Your task to perform on an android device: move an email to a new category in the gmail app Image 0: 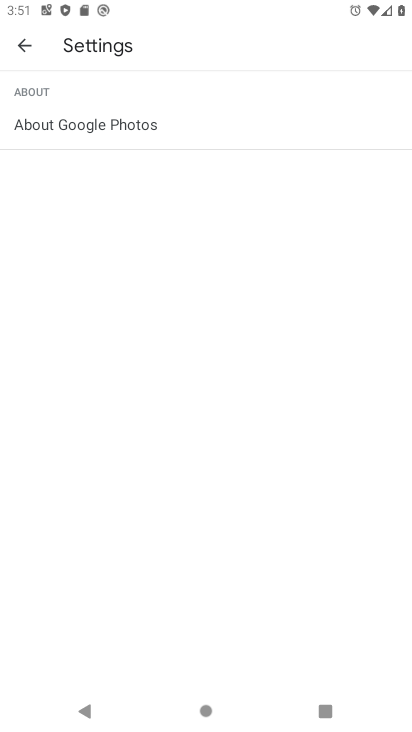
Step 0: press home button
Your task to perform on an android device: move an email to a new category in the gmail app Image 1: 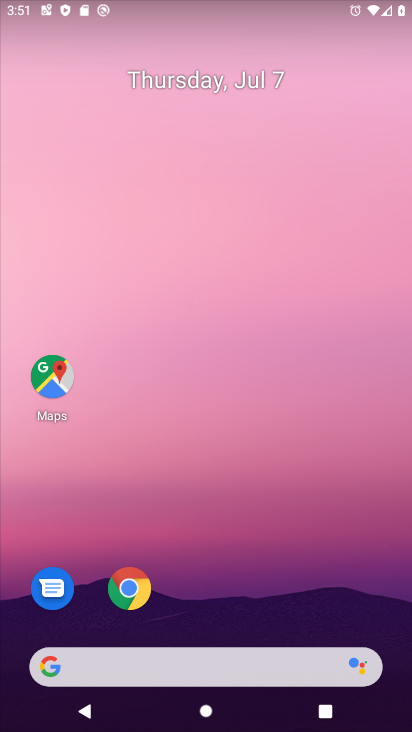
Step 1: drag from (238, 683) to (195, 138)
Your task to perform on an android device: move an email to a new category in the gmail app Image 2: 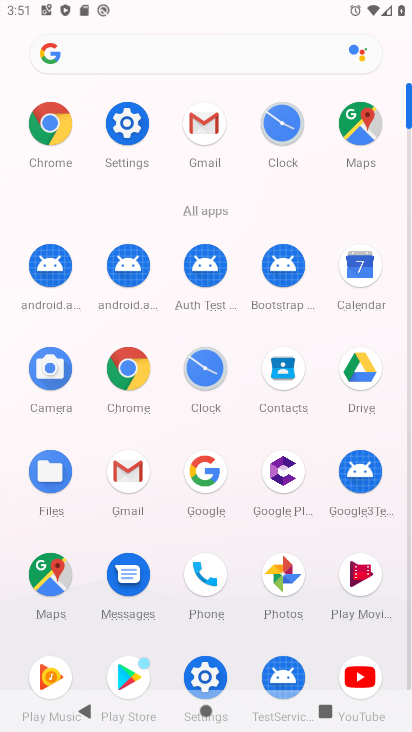
Step 2: click (190, 127)
Your task to perform on an android device: move an email to a new category in the gmail app Image 3: 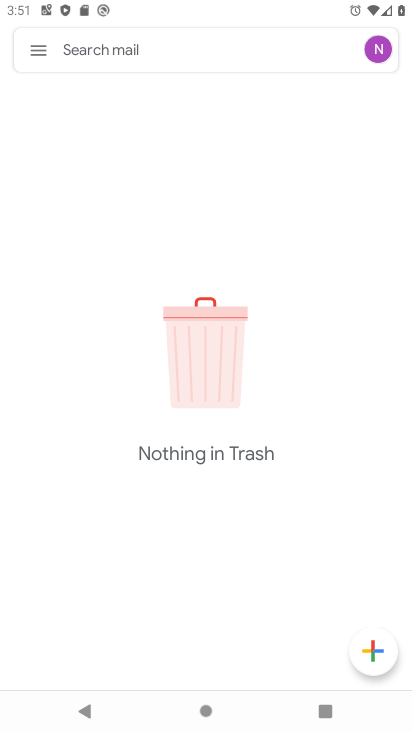
Step 3: click (30, 56)
Your task to perform on an android device: move an email to a new category in the gmail app Image 4: 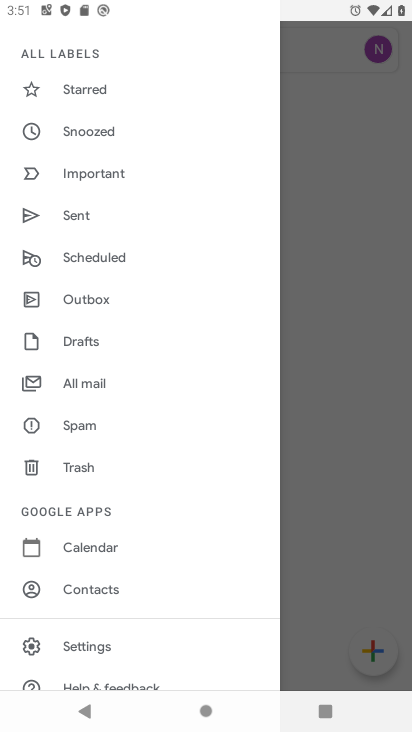
Step 4: click (113, 646)
Your task to perform on an android device: move an email to a new category in the gmail app Image 5: 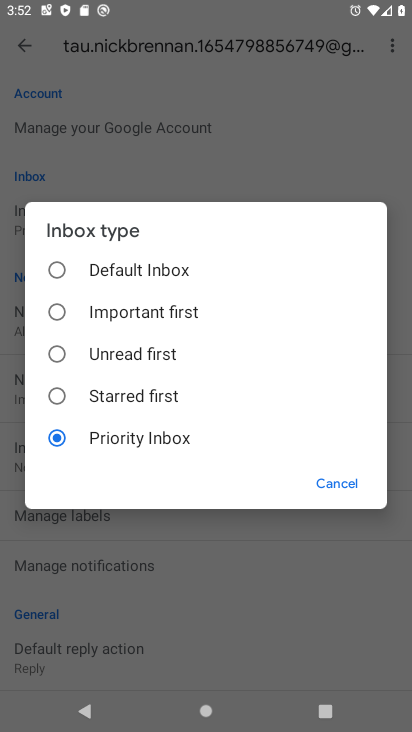
Step 5: click (315, 483)
Your task to perform on an android device: move an email to a new category in the gmail app Image 6: 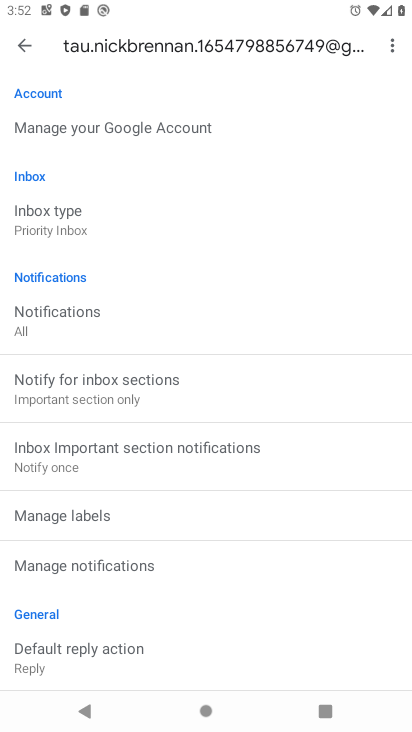
Step 6: click (80, 223)
Your task to perform on an android device: move an email to a new category in the gmail app Image 7: 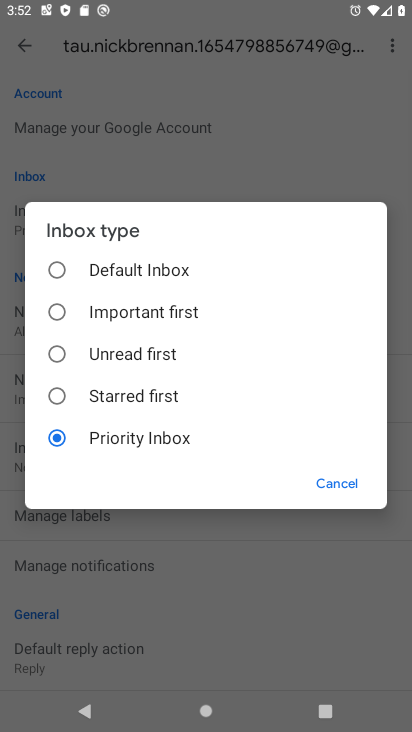
Step 7: click (58, 271)
Your task to perform on an android device: move an email to a new category in the gmail app Image 8: 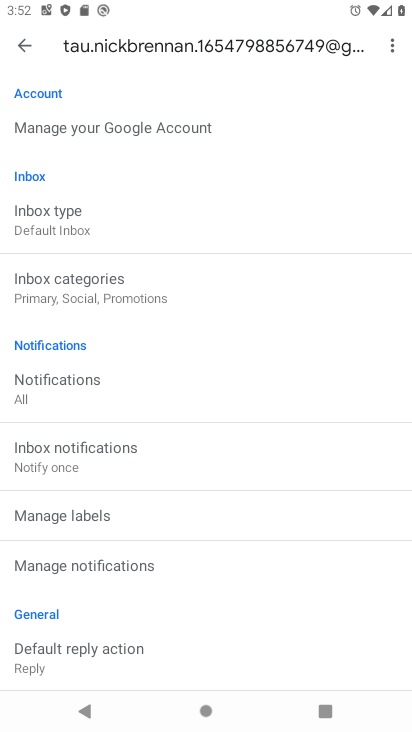
Step 8: click (81, 281)
Your task to perform on an android device: move an email to a new category in the gmail app Image 9: 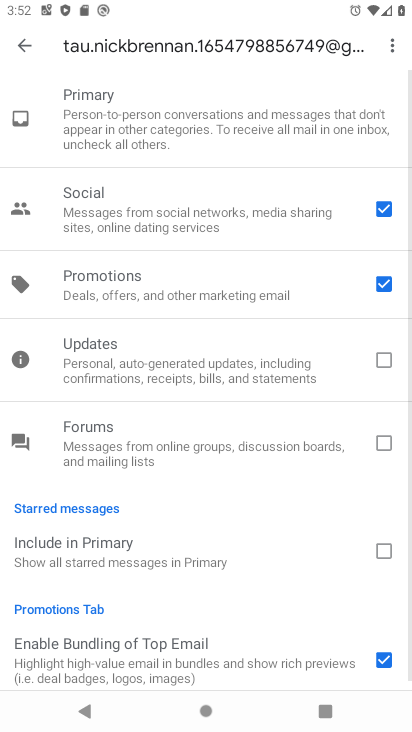
Step 9: click (376, 359)
Your task to perform on an android device: move an email to a new category in the gmail app Image 10: 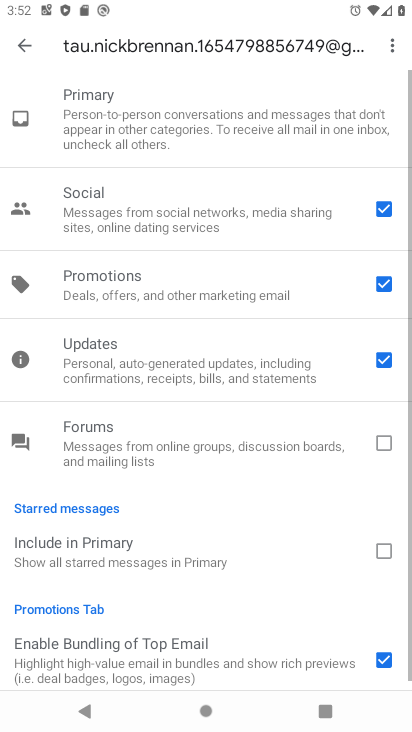
Step 10: task complete